Your task to perform on an android device: Search for bose quietcomfort 35 on amazon.com, select the first entry, add it to the cart, then select checkout. Image 0: 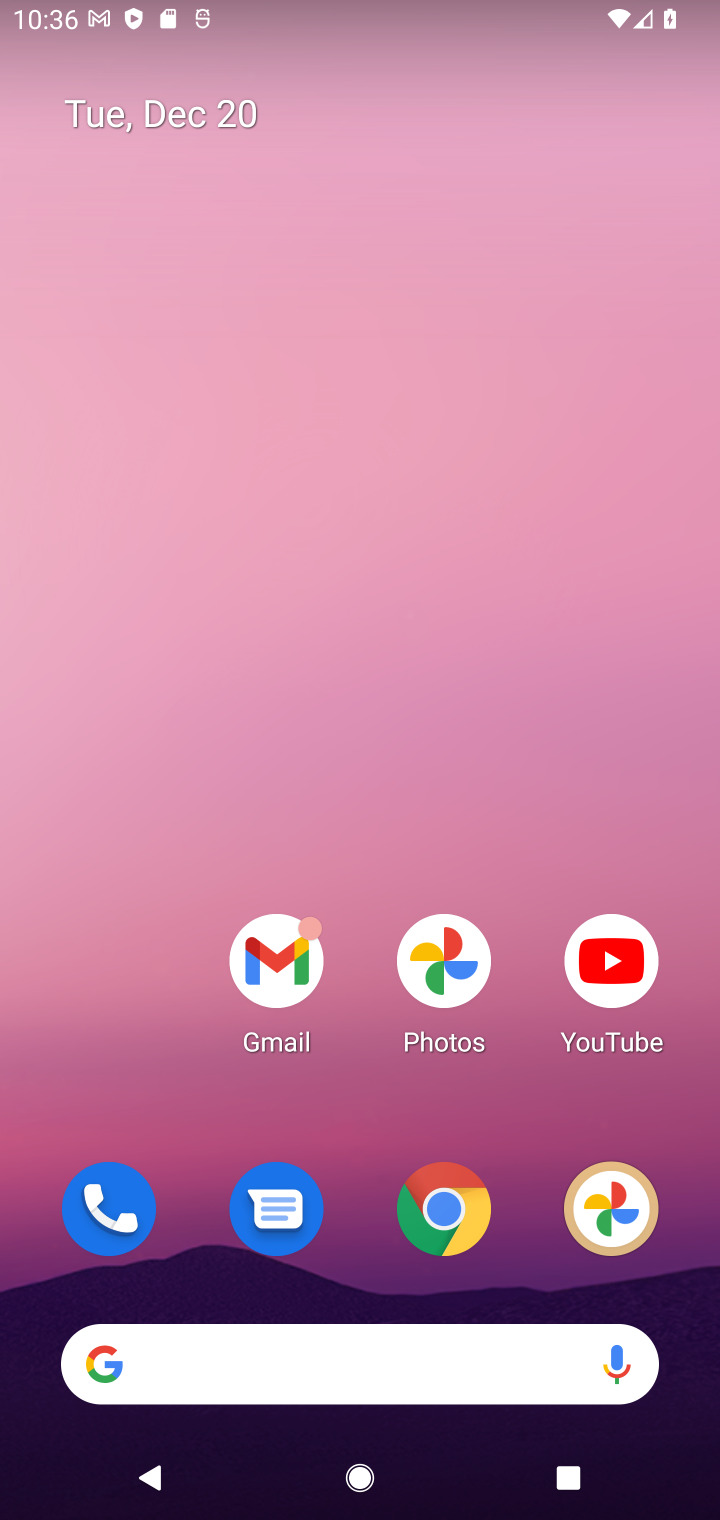
Step 0: click (461, 1212)
Your task to perform on an android device: Search for bose quietcomfort 35 on amazon.com, select the first entry, add it to the cart, then select checkout. Image 1: 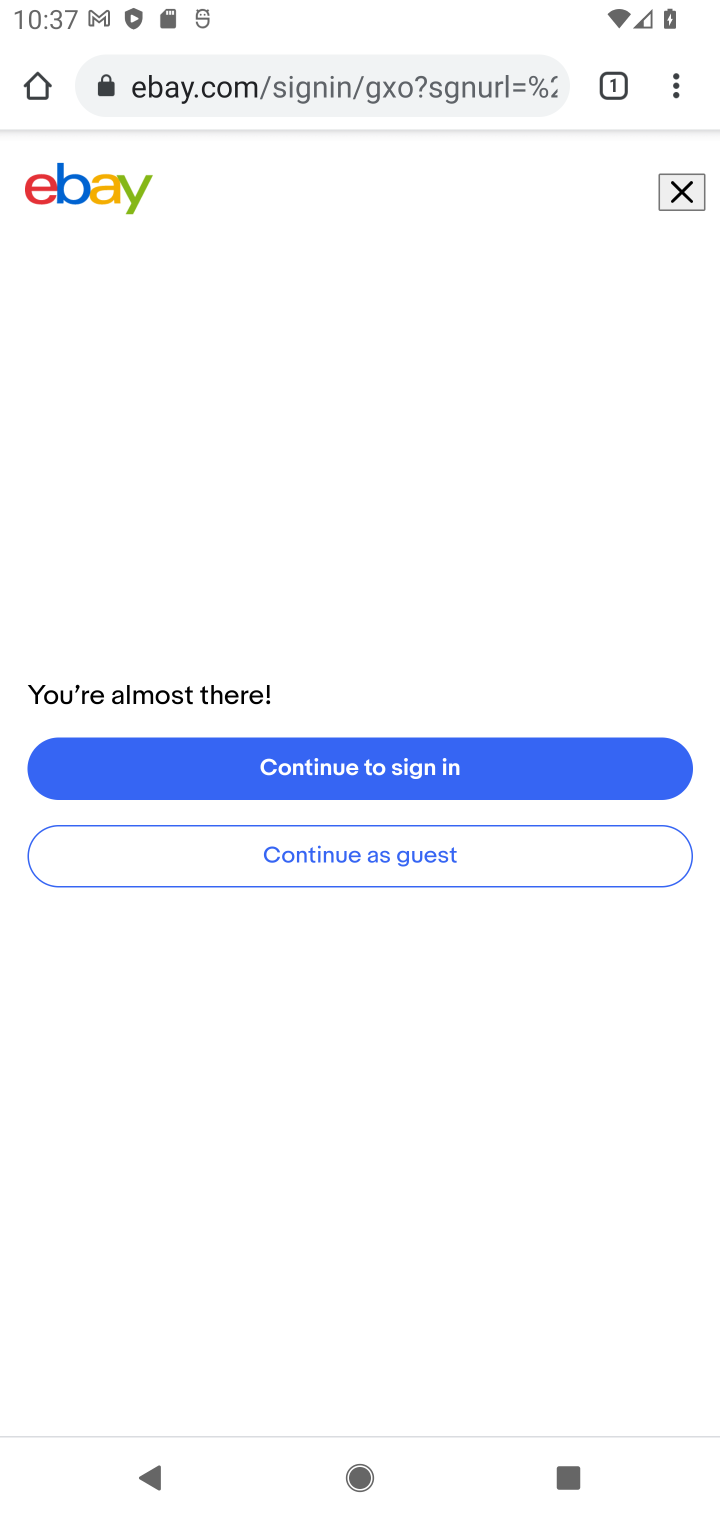
Step 1: click (202, 84)
Your task to perform on an android device: Search for bose quietcomfort 35 on amazon.com, select the first entry, add it to the cart, then select checkout. Image 2: 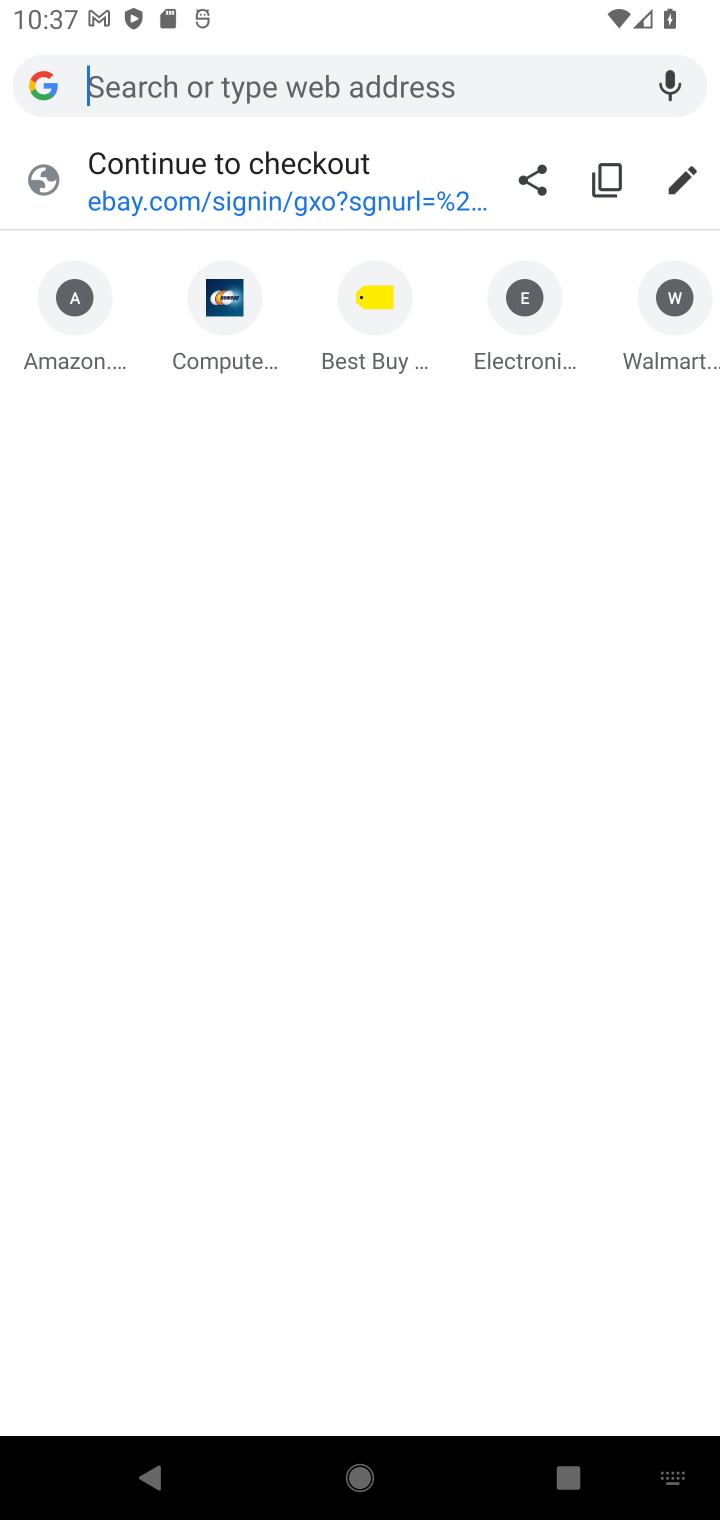
Step 2: click (67, 306)
Your task to perform on an android device: Search for bose quietcomfort 35 on amazon.com, select the first entry, add it to the cart, then select checkout. Image 3: 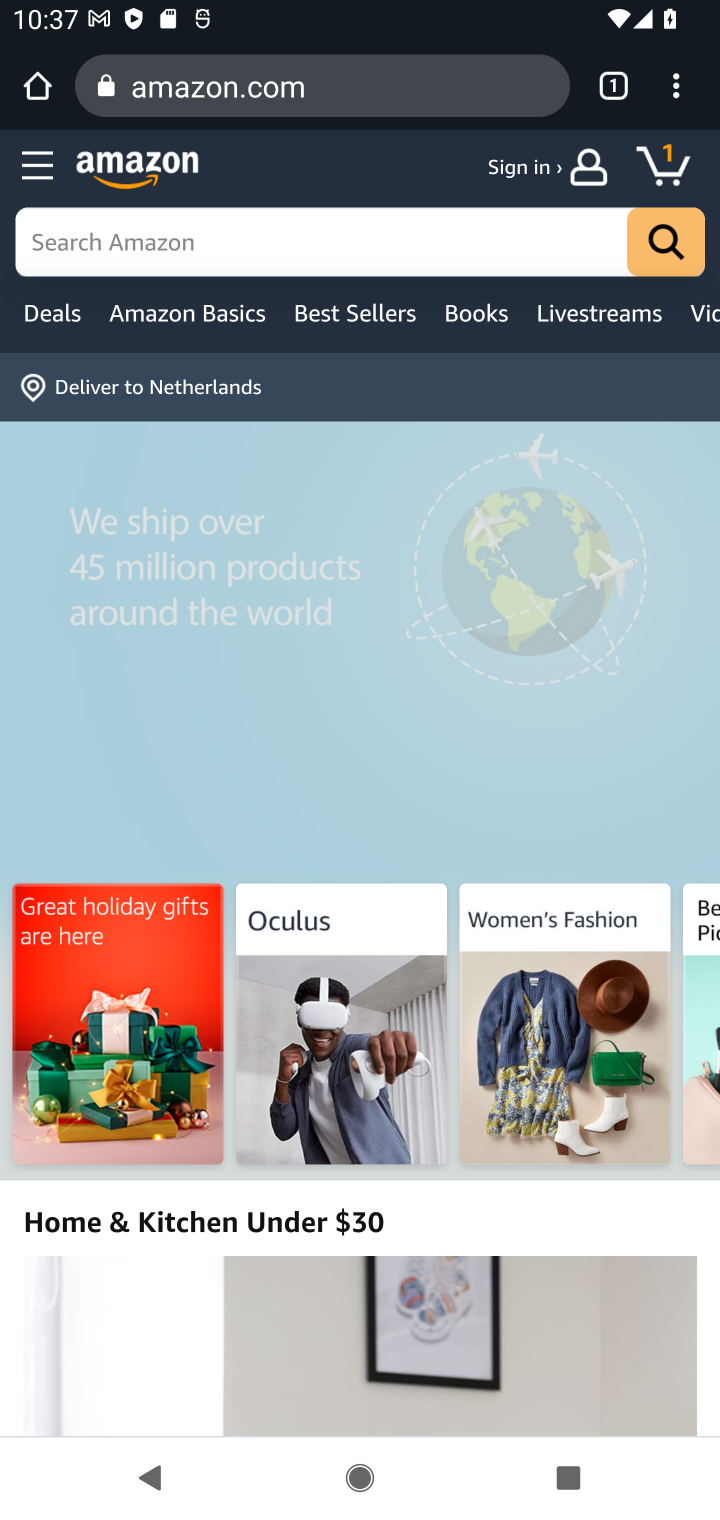
Step 3: click (52, 234)
Your task to perform on an android device: Search for bose quietcomfort 35 on amazon.com, select the first entry, add it to the cart, then select checkout. Image 4: 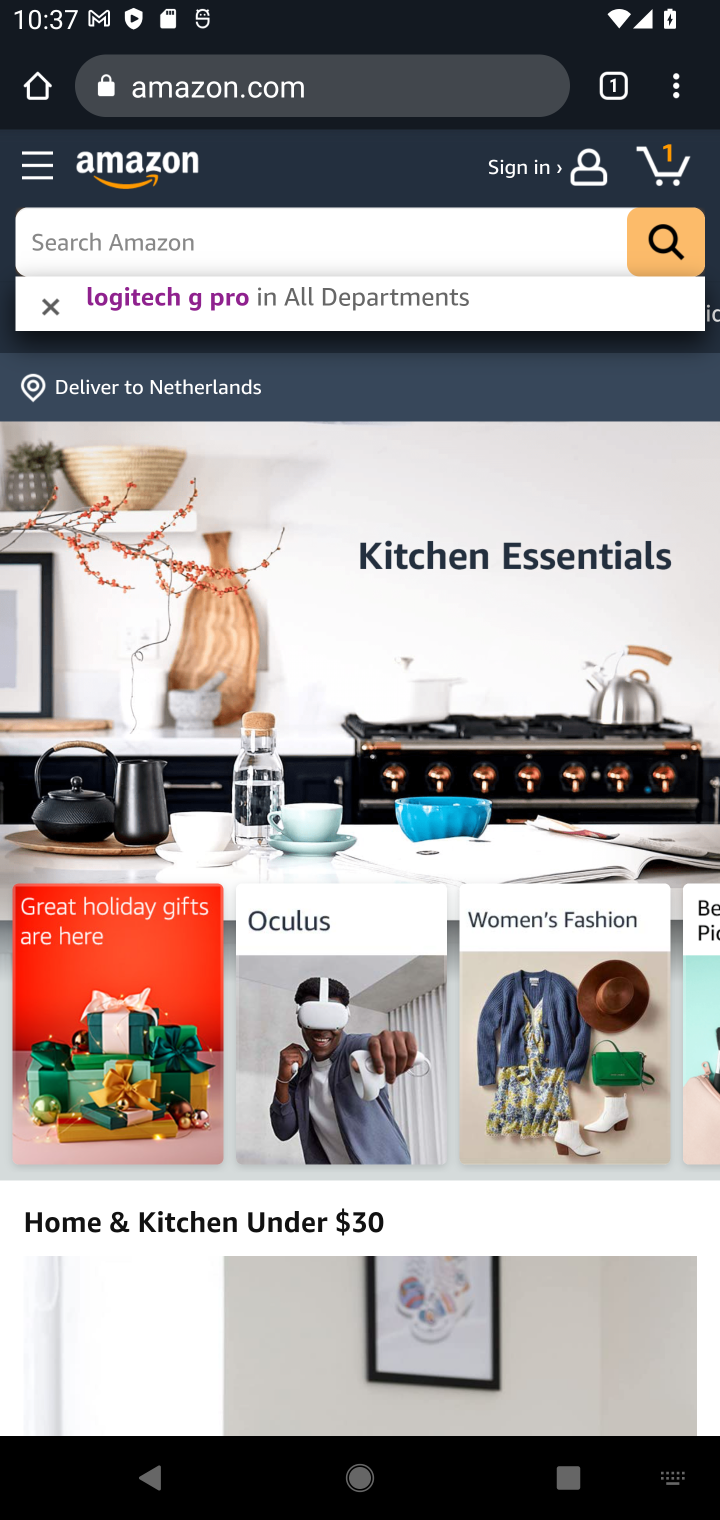
Step 4: type "bose quietcomfort 35"
Your task to perform on an android device: Search for bose quietcomfort 35 on amazon.com, select the first entry, add it to the cart, then select checkout. Image 5: 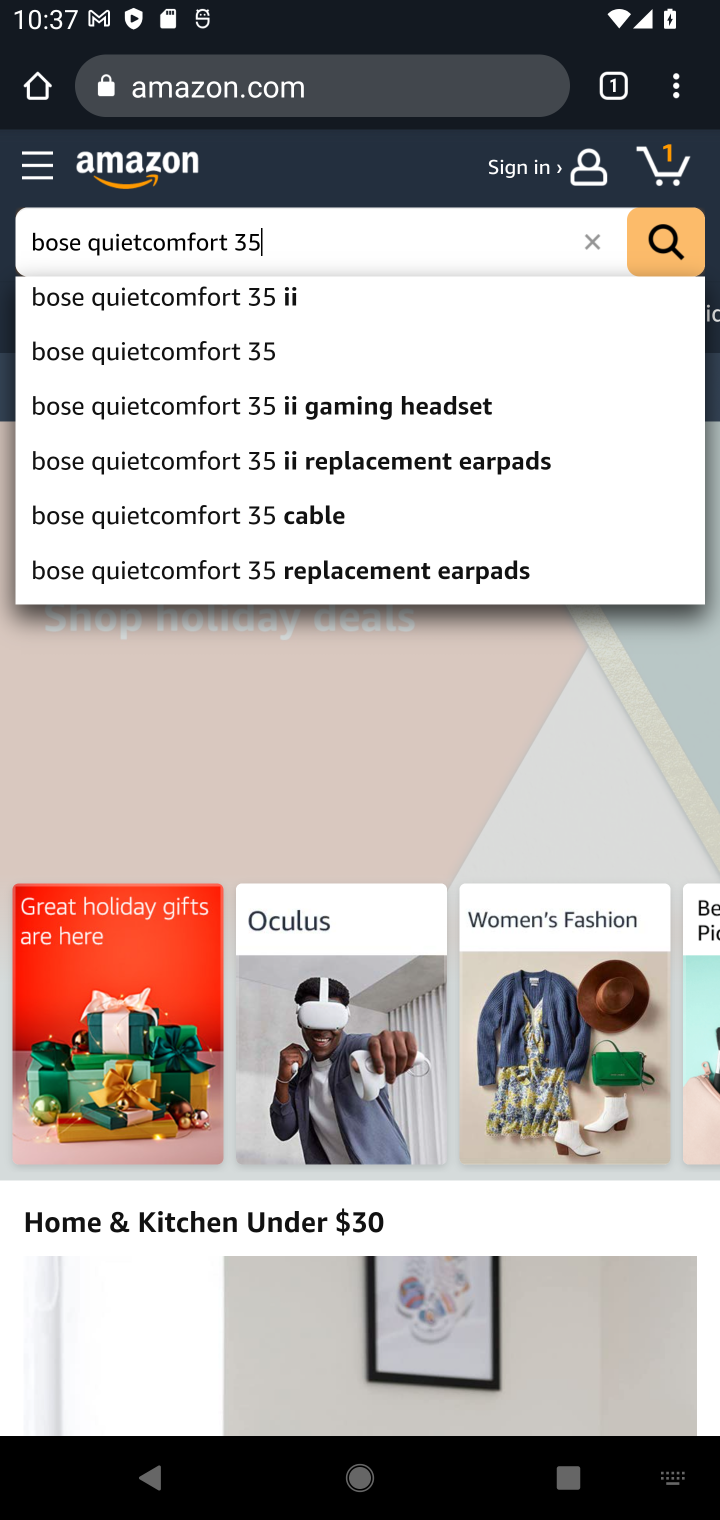
Step 5: click (158, 353)
Your task to perform on an android device: Search for bose quietcomfort 35 on amazon.com, select the first entry, add it to the cart, then select checkout. Image 6: 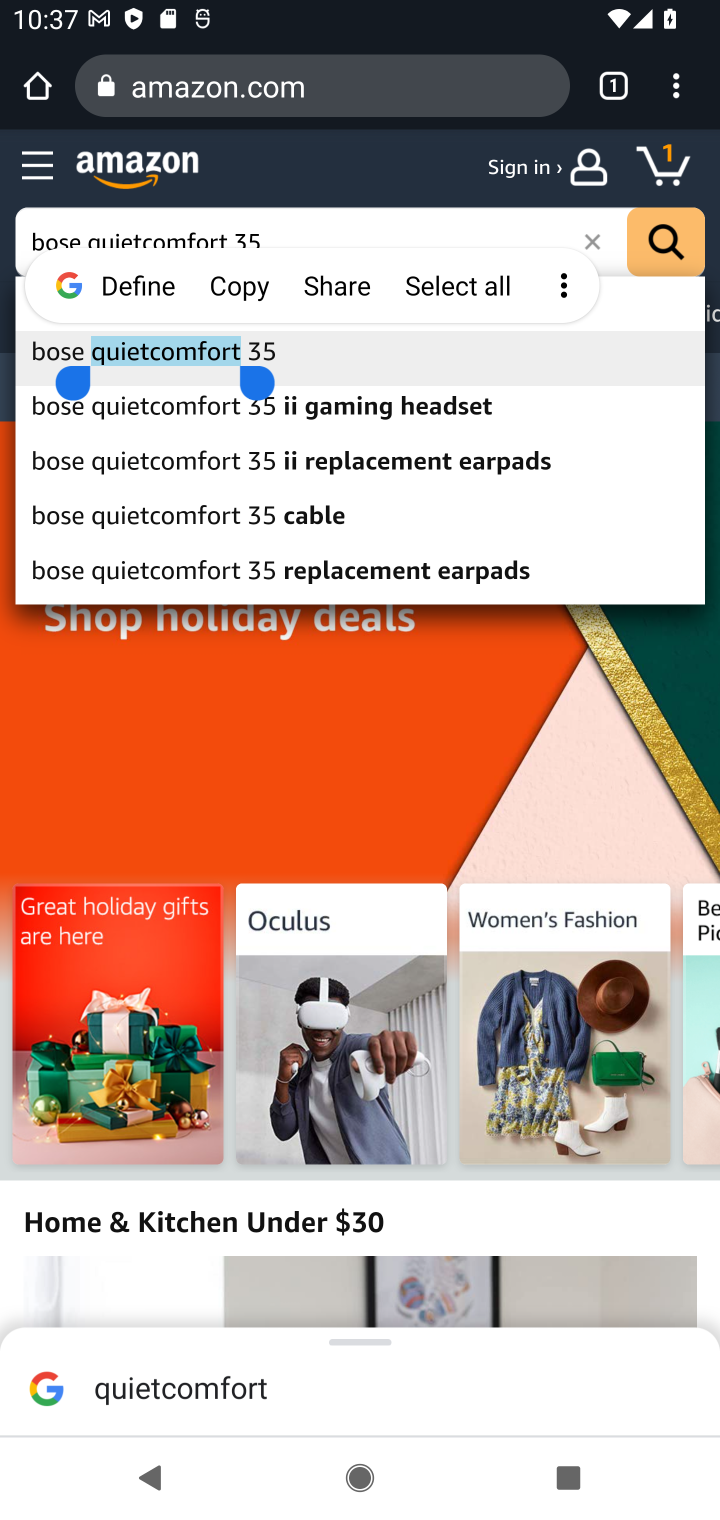
Step 6: click (248, 347)
Your task to perform on an android device: Search for bose quietcomfort 35 on amazon.com, select the first entry, add it to the cart, then select checkout. Image 7: 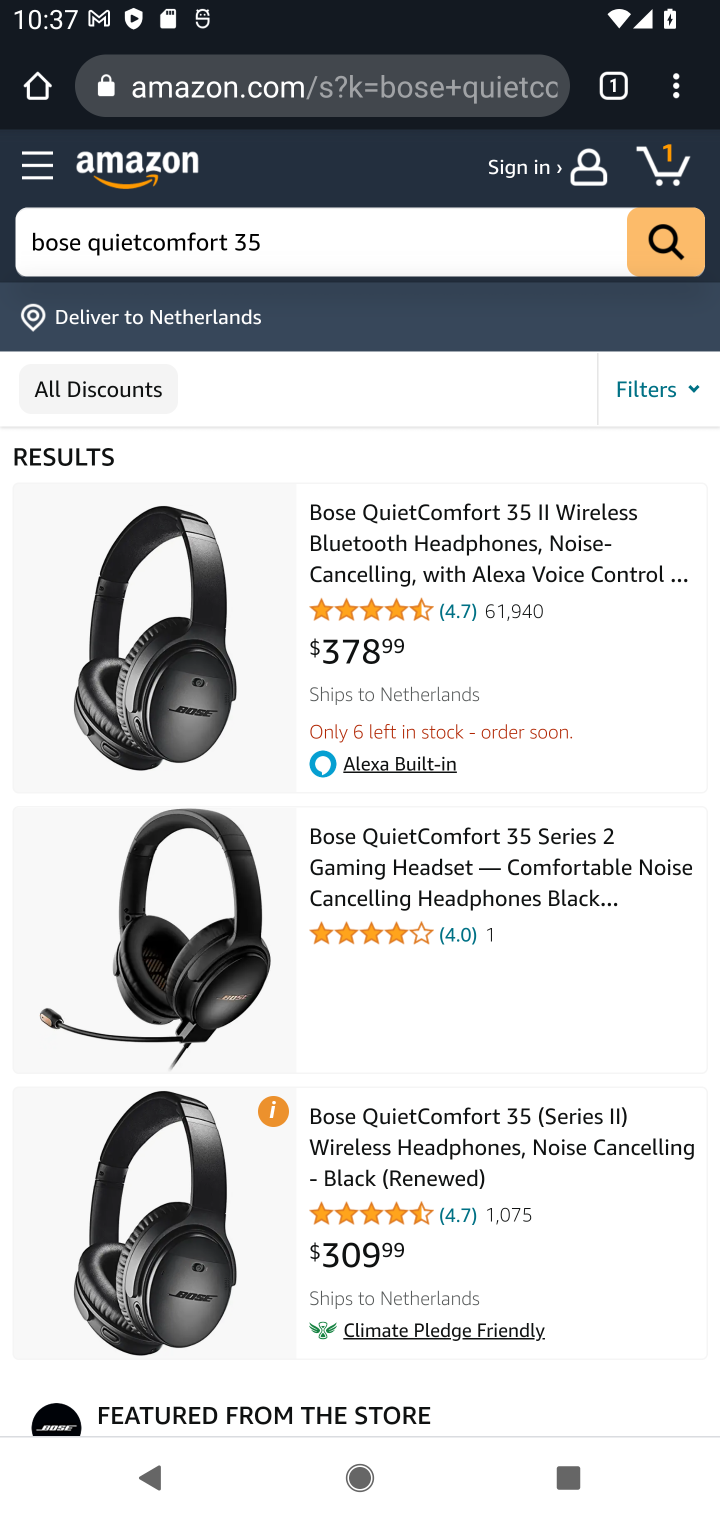
Step 7: click (401, 560)
Your task to perform on an android device: Search for bose quietcomfort 35 on amazon.com, select the first entry, add it to the cart, then select checkout. Image 8: 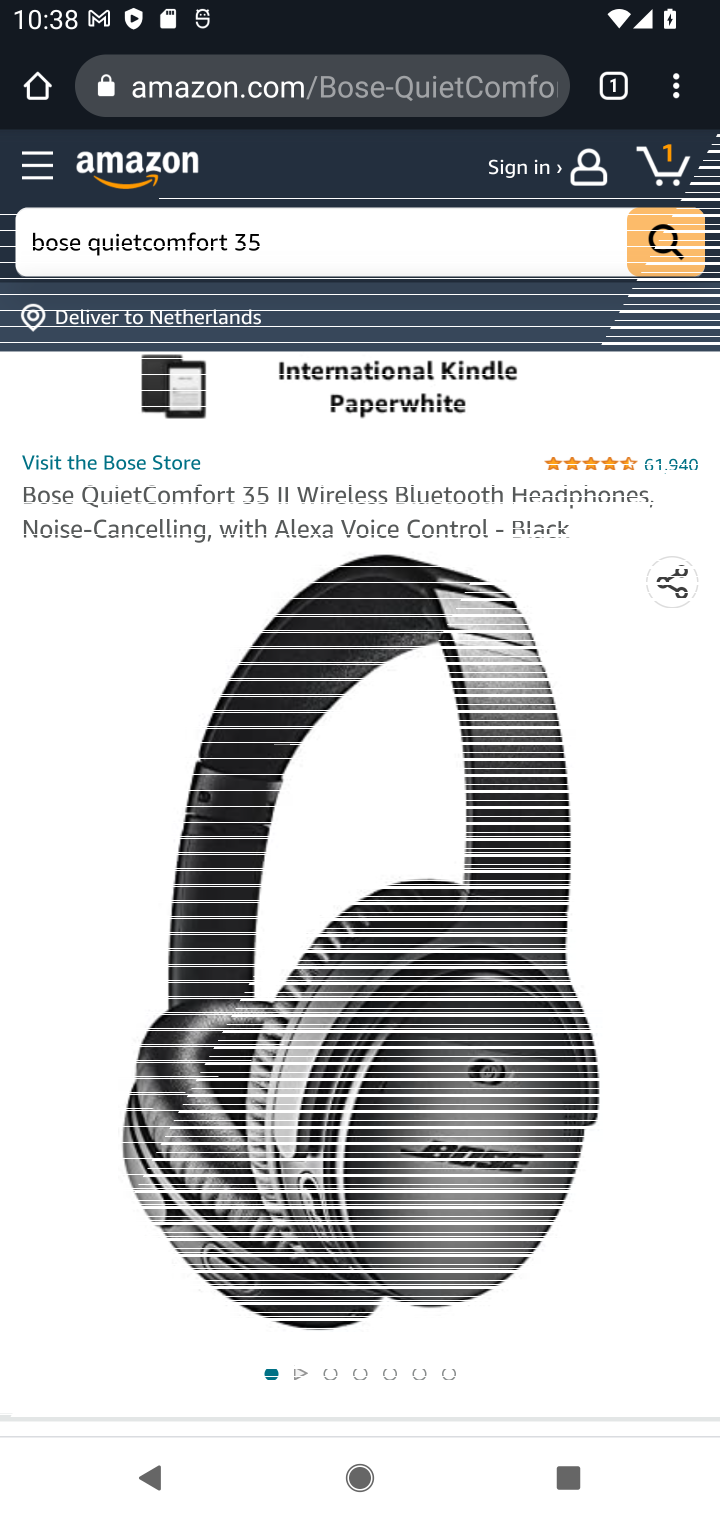
Step 8: drag from (311, 1053) to (338, 526)
Your task to perform on an android device: Search for bose quietcomfort 35 on amazon.com, select the first entry, add it to the cart, then select checkout. Image 9: 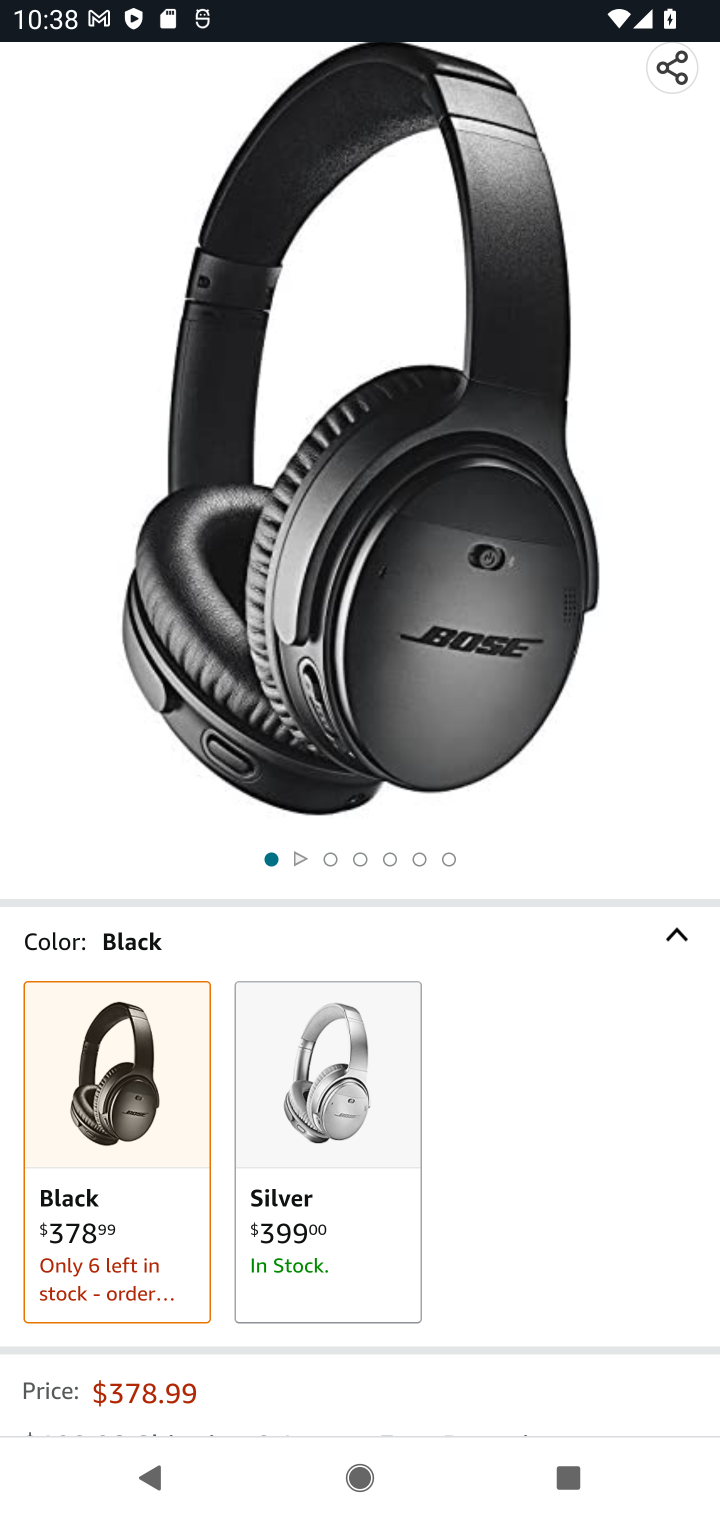
Step 9: drag from (269, 1033) to (292, 429)
Your task to perform on an android device: Search for bose quietcomfort 35 on amazon.com, select the first entry, add it to the cart, then select checkout. Image 10: 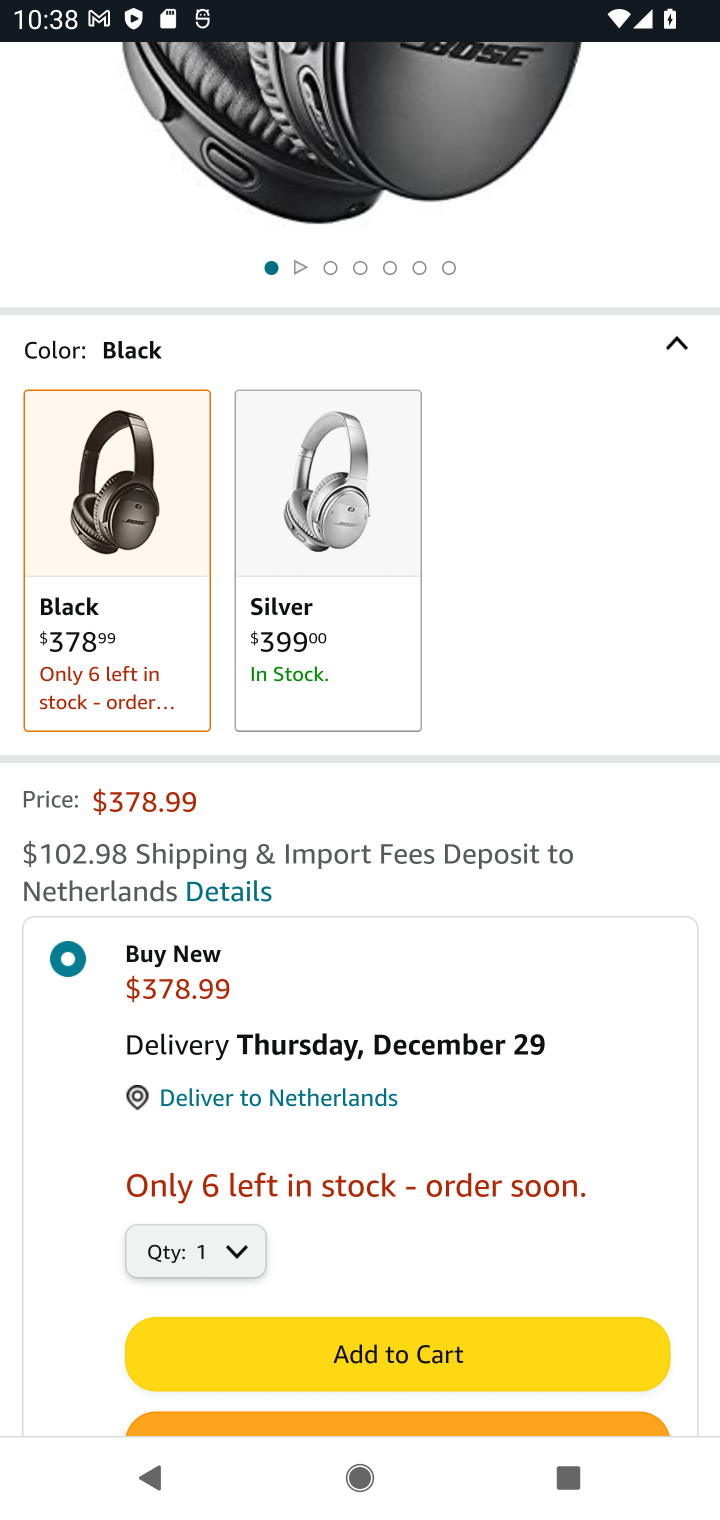
Step 10: drag from (385, 950) to (365, 587)
Your task to perform on an android device: Search for bose quietcomfort 35 on amazon.com, select the first entry, add it to the cart, then select checkout. Image 11: 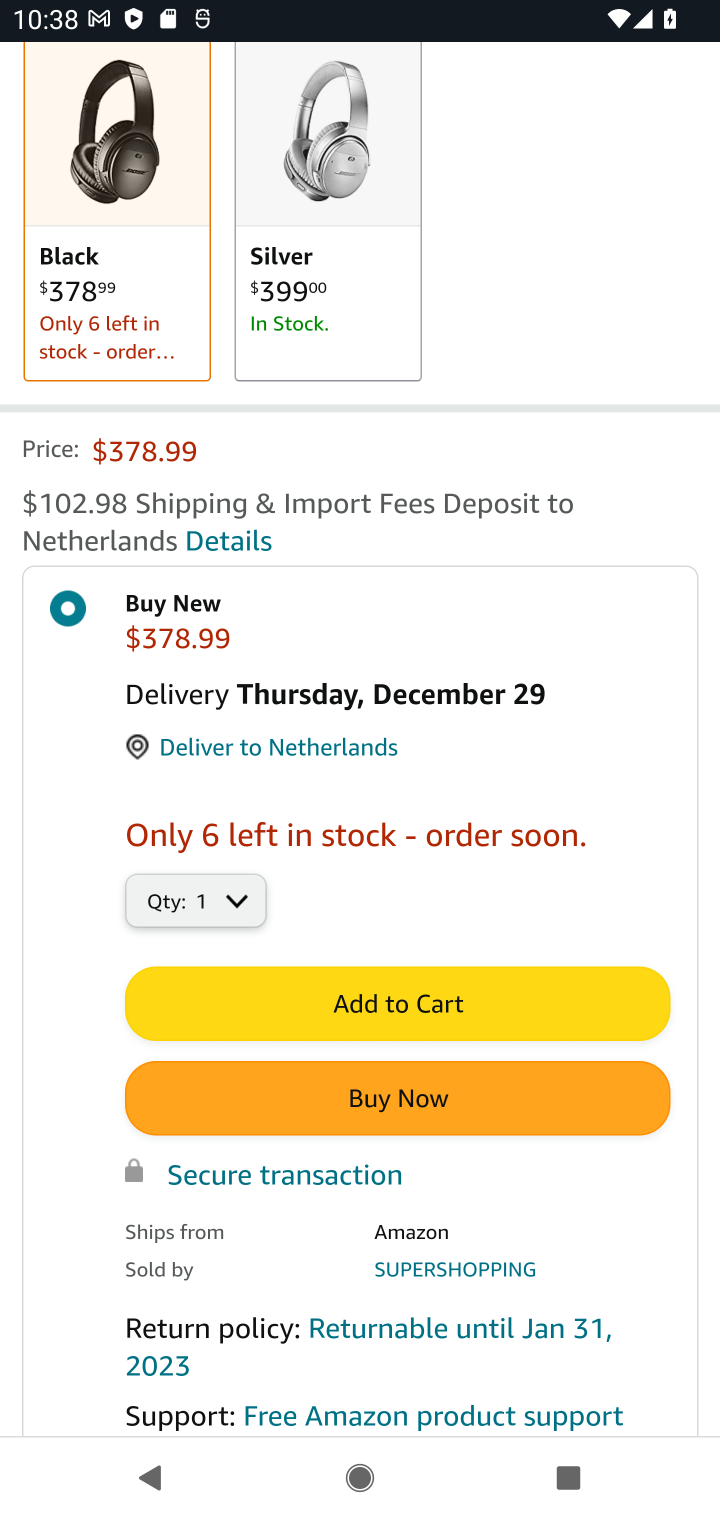
Step 11: click (359, 1003)
Your task to perform on an android device: Search for bose quietcomfort 35 on amazon.com, select the first entry, add it to the cart, then select checkout. Image 12: 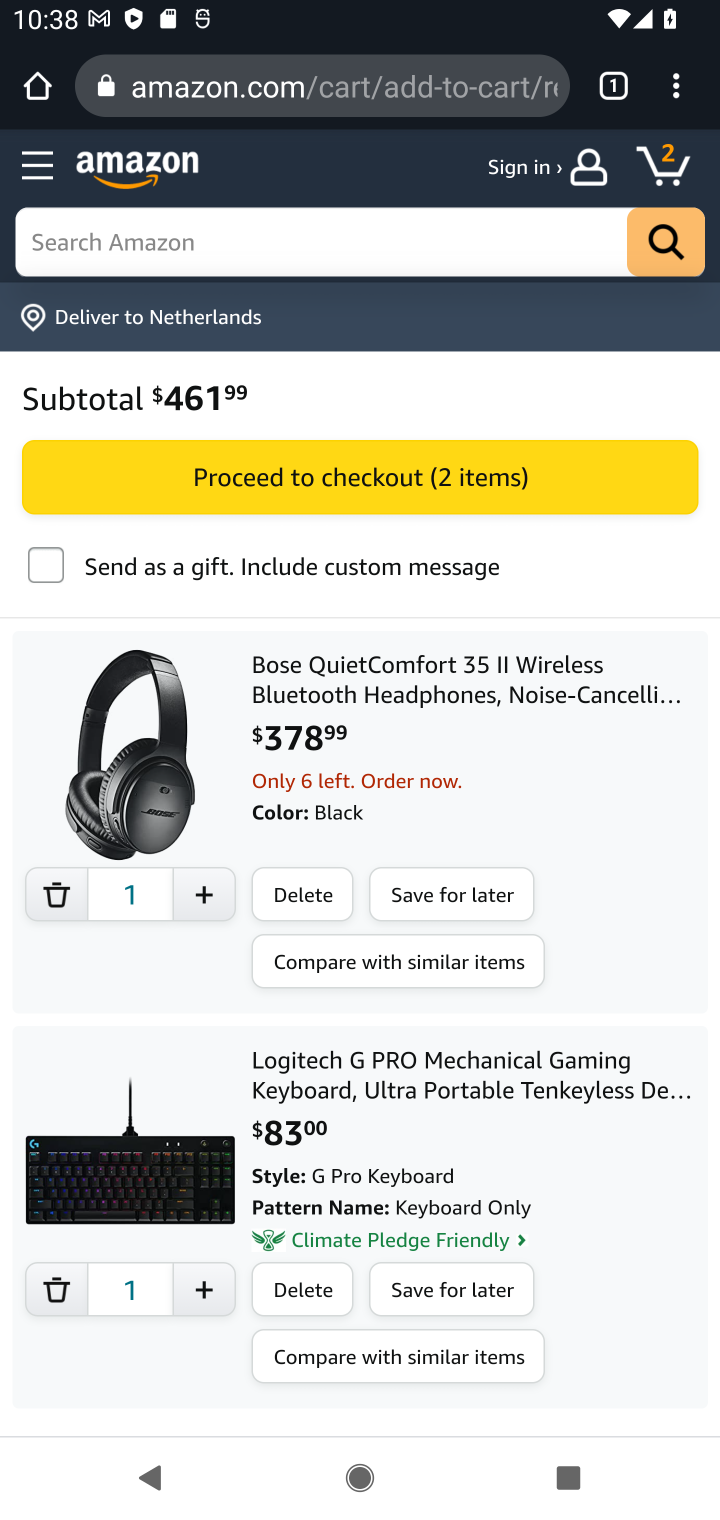
Step 12: click (339, 482)
Your task to perform on an android device: Search for bose quietcomfort 35 on amazon.com, select the first entry, add it to the cart, then select checkout. Image 13: 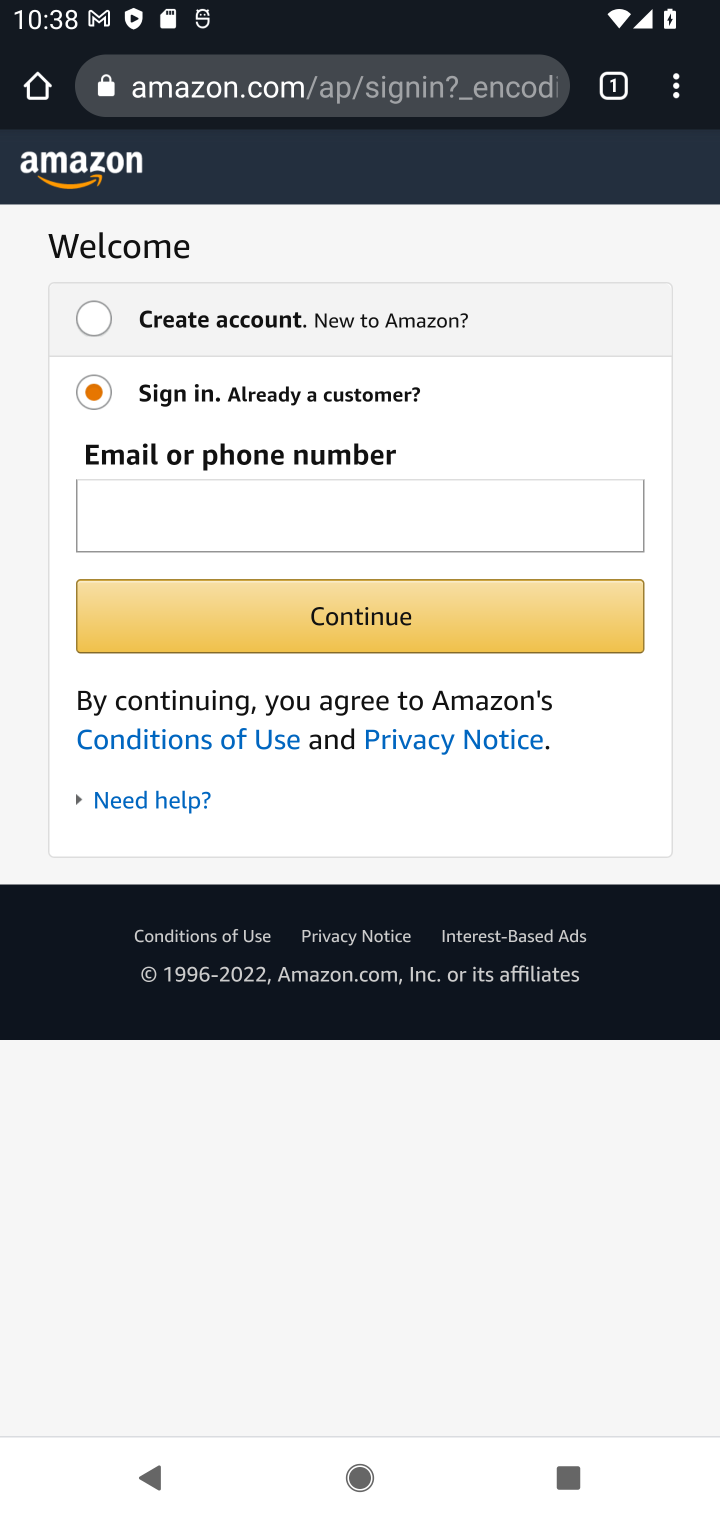
Step 13: task complete